Your task to perform on an android device: toggle wifi Image 0: 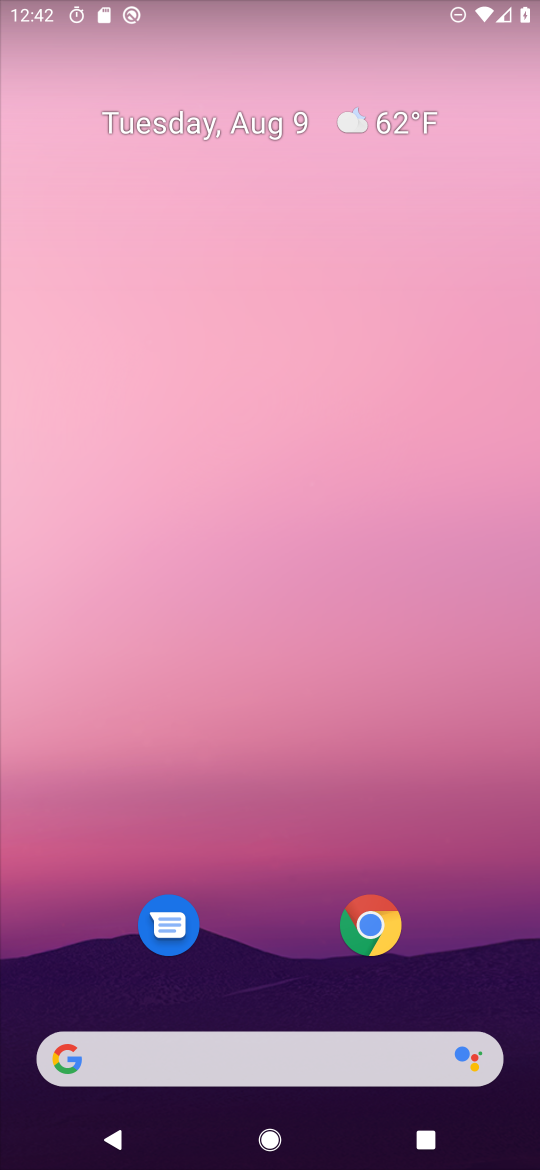
Step 0: drag from (262, 567) to (281, 124)
Your task to perform on an android device: toggle wifi Image 1: 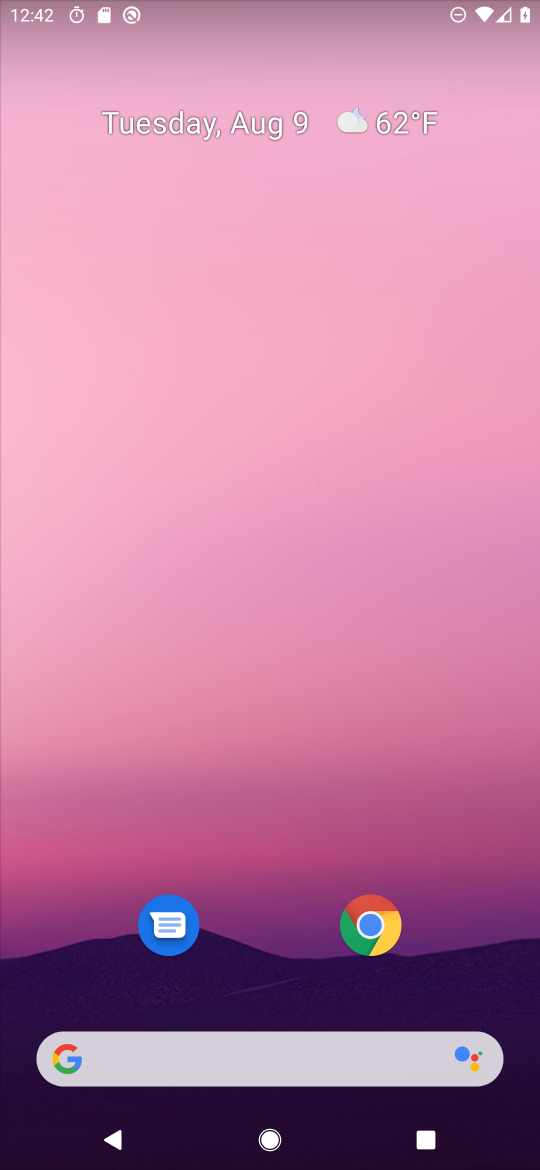
Step 1: drag from (217, 621) to (290, 38)
Your task to perform on an android device: toggle wifi Image 2: 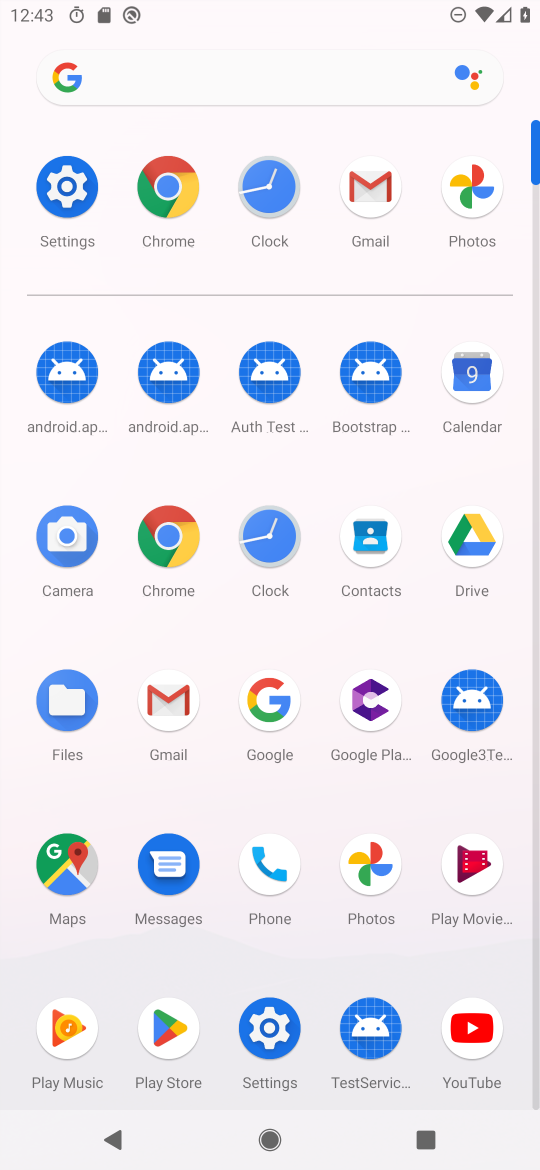
Step 2: click (68, 198)
Your task to perform on an android device: toggle wifi Image 3: 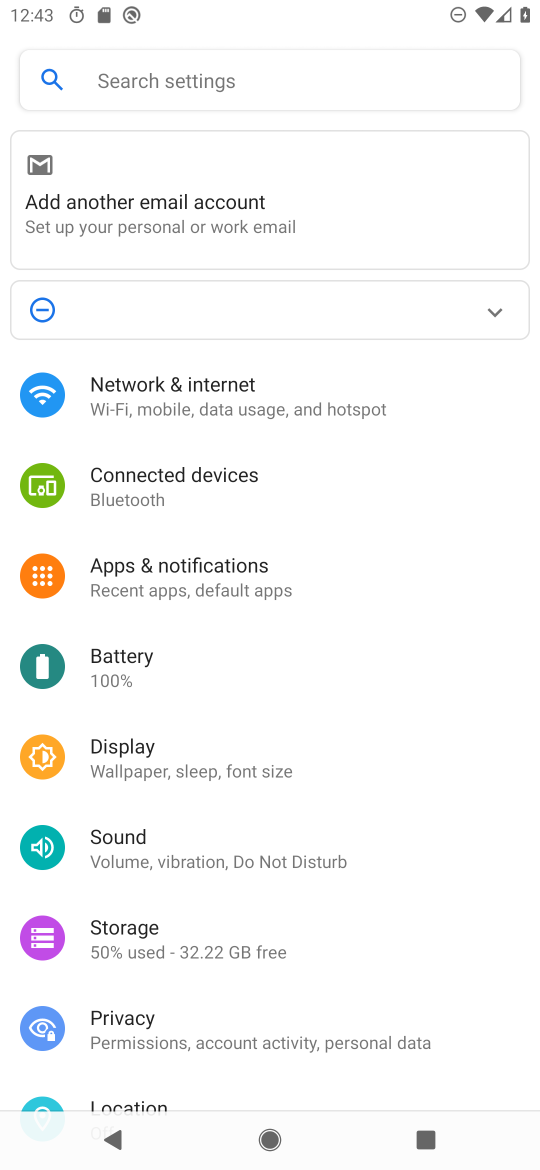
Step 3: click (173, 388)
Your task to perform on an android device: toggle wifi Image 4: 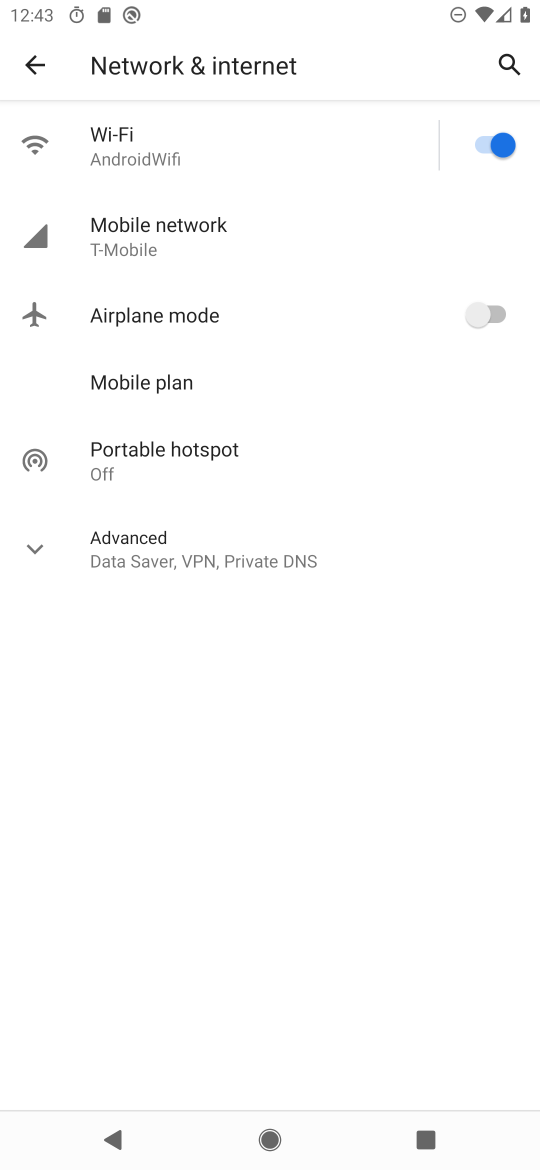
Step 4: click (291, 155)
Your task to perform on an android device: toggle wifi Image 5: 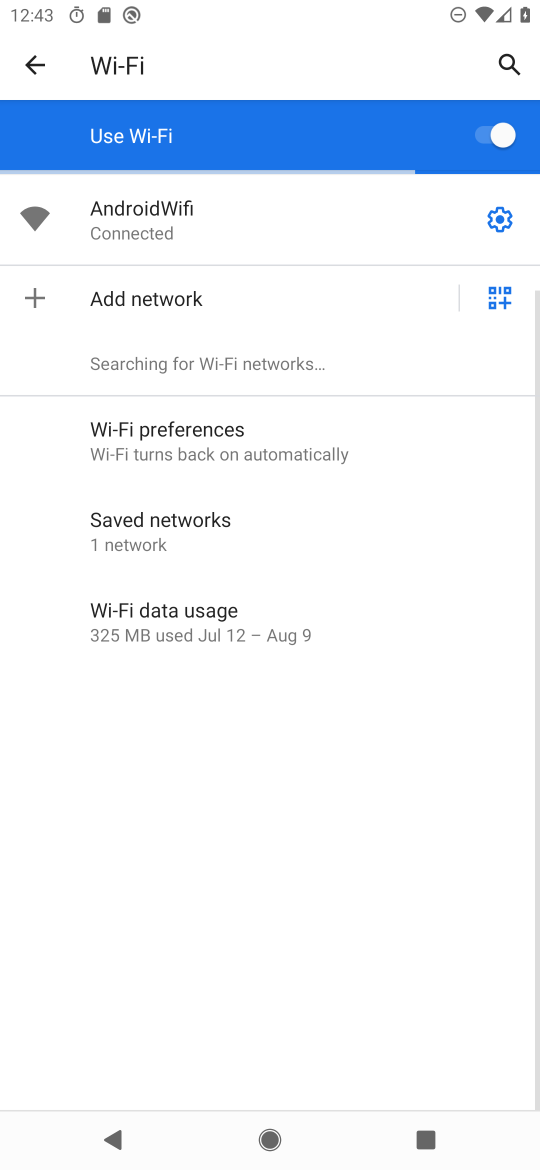
Step 5: click (483, 141)
Your task to perform on an android device: toggle wifi Image 6: 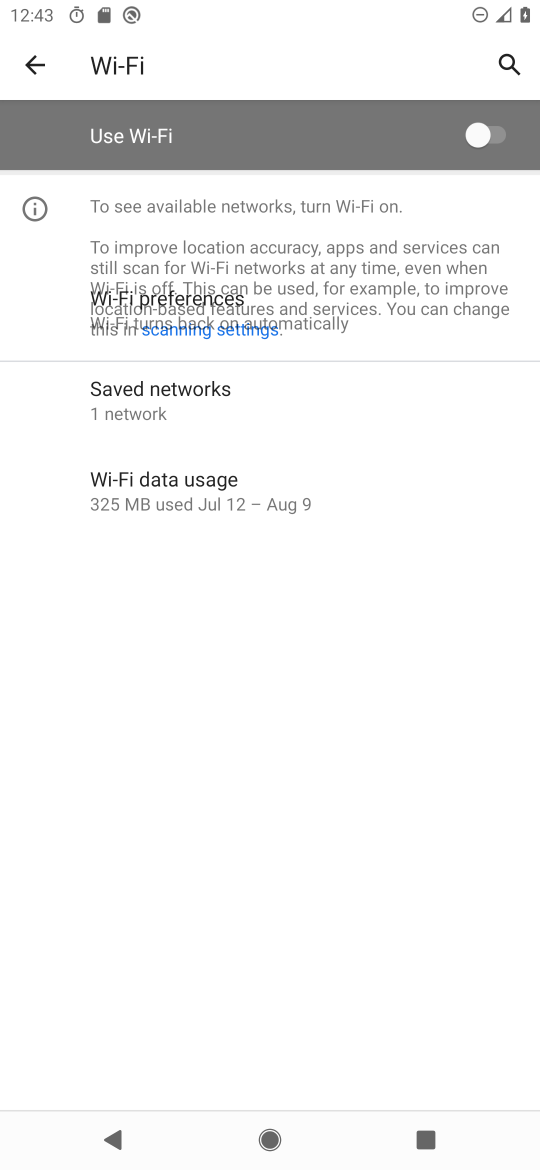
Step 6: task complete